Your task to perform on an android device: Open settings on Google Maps Image 0: 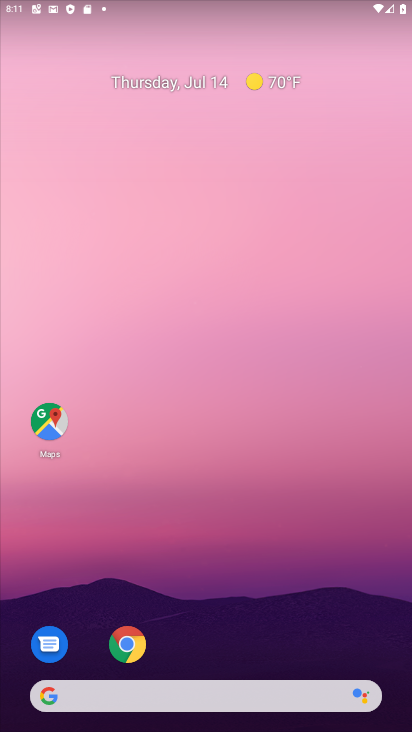
Step 0: drag from (270, 608) to (258, 266)
Your task to perform on an android device: Open settings on Google Maps Image 1: 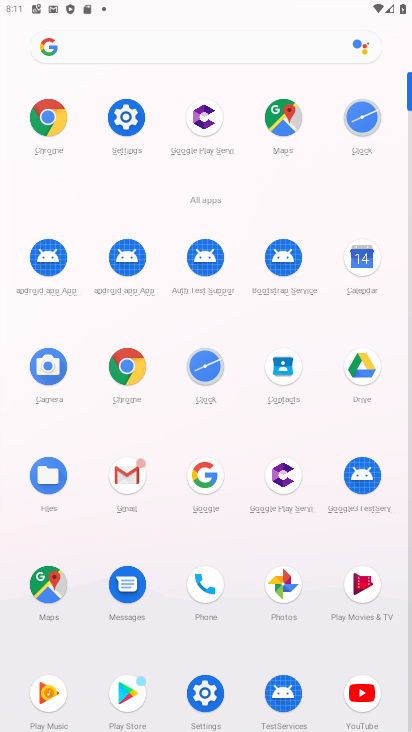
Step 1: click (35, 578)
Your task to perform on an android device: Open settings on Google Maps Image 2: 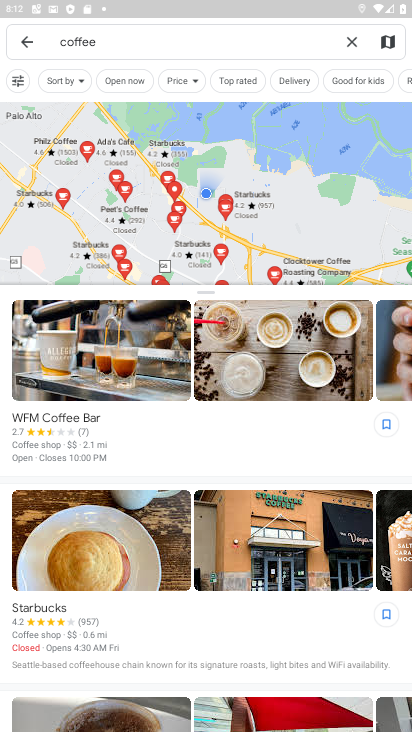
Step 2: click (349, 44)
Your task to perform on an android device: Open settings on Google Maps Image 3: 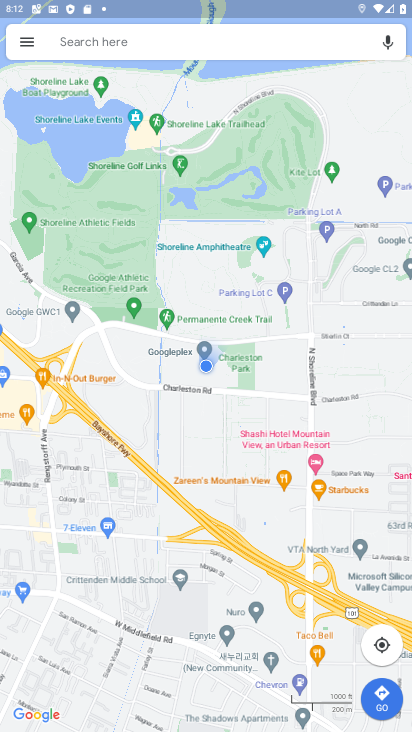
Step 3: click (21, 38)
Your task to perform on an android device: Open settings on Google Maps Image 4: 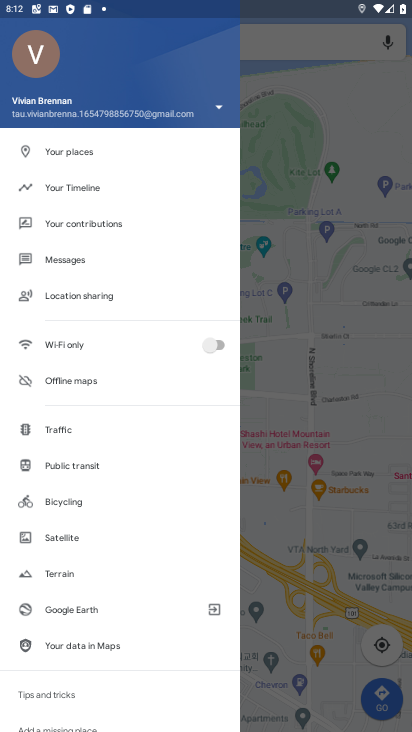
Step 4: drag from (81, 682) to (115, 285)
Your task to perform on an android device: Open settings on Google Maps Image 5: 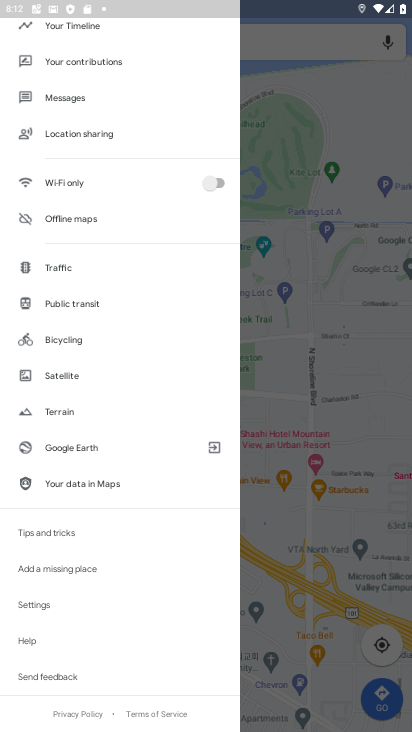
Step 5: click (63, 606)
Your task to perform on an android device: Open settings on Google Maps Image 6: 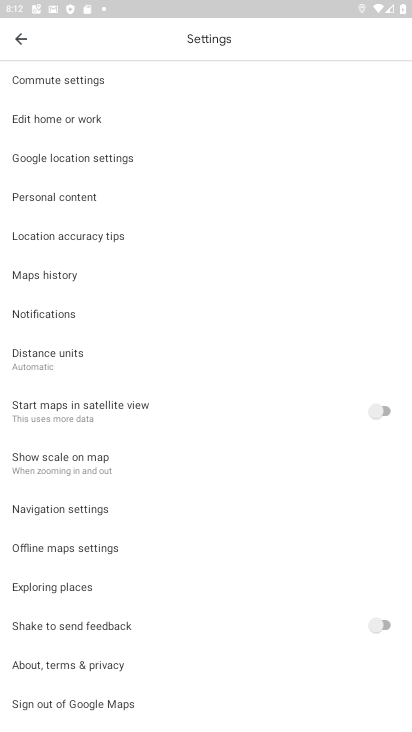
Step 6: task complete